Your task to perform on an android device: toggle data saver in the chrome app Image 0: 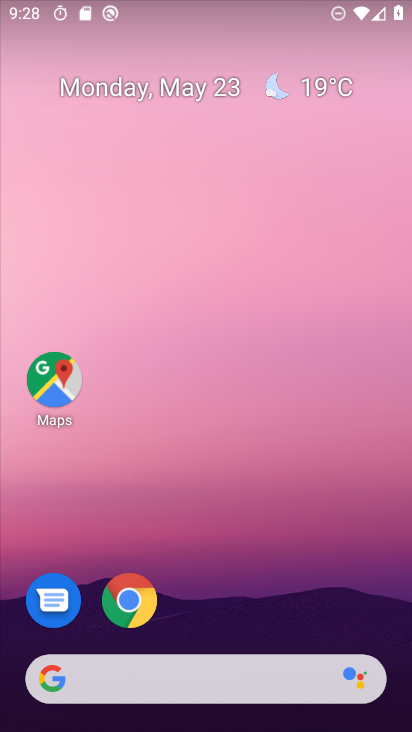
Step 0: press home button
Your task to perform on an android device: toggle data saver in the chrome app Image 1: 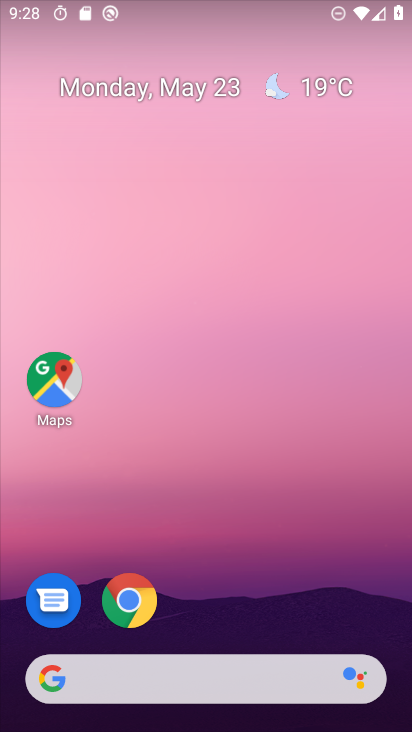
Step 1: click (127, 597)
Your task to perform on an android device: toggle data saver in the chrome app Image 2: 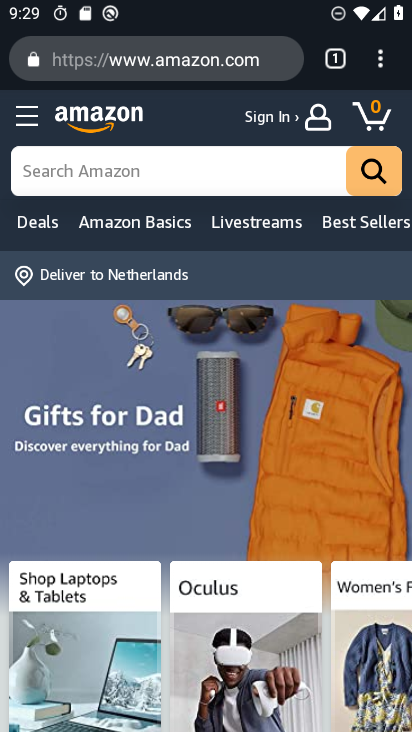
Step 2: click (379, 67)
Your task to perform on an android device: toggle data saver in the chrome app Image 3: 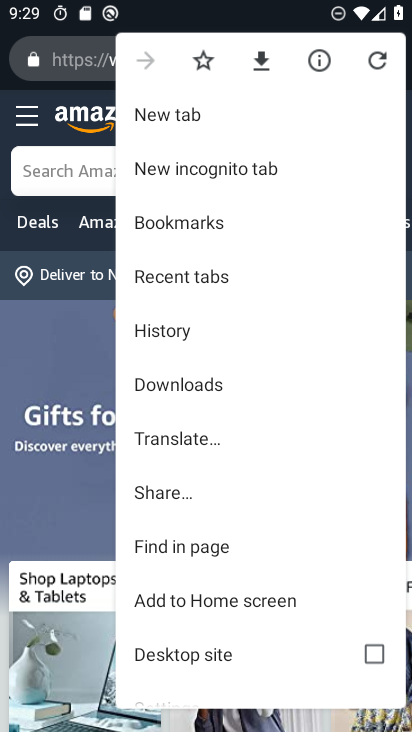
Step 3: drag from (164, 682) to (304, 135)
Your task to perform on an android device: toggle data saver in the chrome app Image 4: 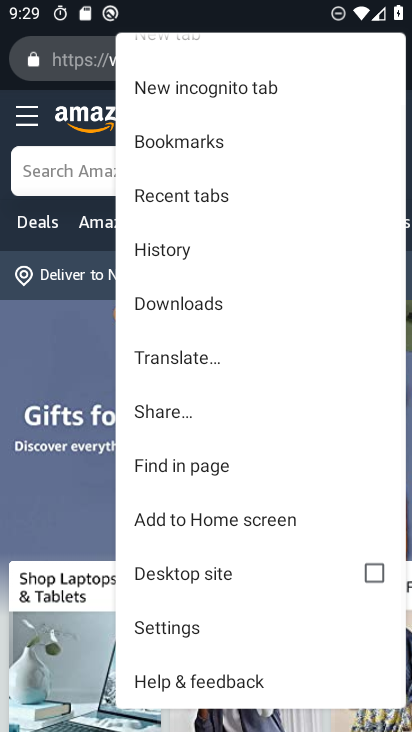
Step 4: click (180, 625)
Your task to perform on an android device: toggle data saver in the chrome app Image 5: 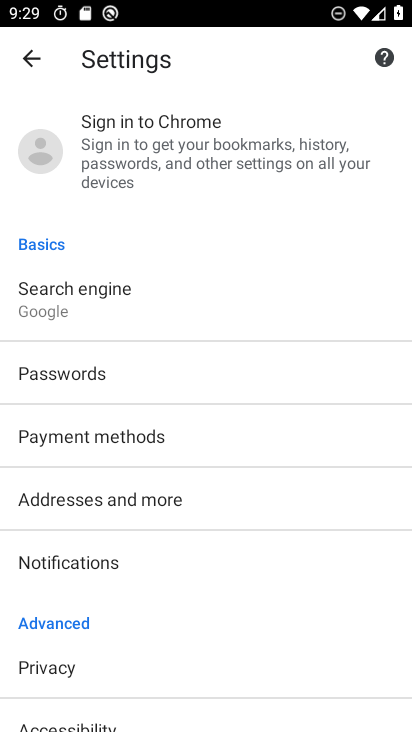
Step 5: drag from (56, 671) to (255, 138)
Your task to perform on an android device: toggle data saver in the chrome app Image 6: 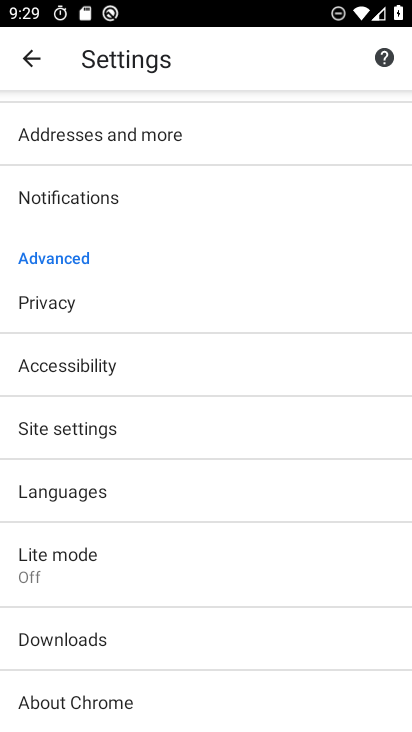
Step 6: click (97, 560)
Your task to perform on an android device: toggle data saver in the chrome app Image 7: 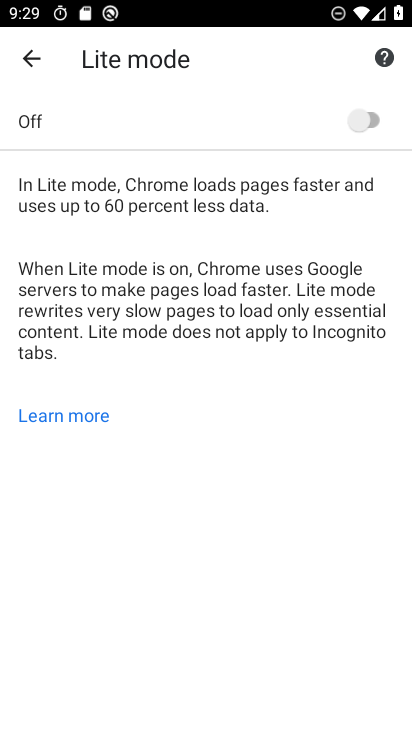
Step 7: click (363, 129)
Your task to perform on an android device: toggle data saver in the chrome app Image 8: 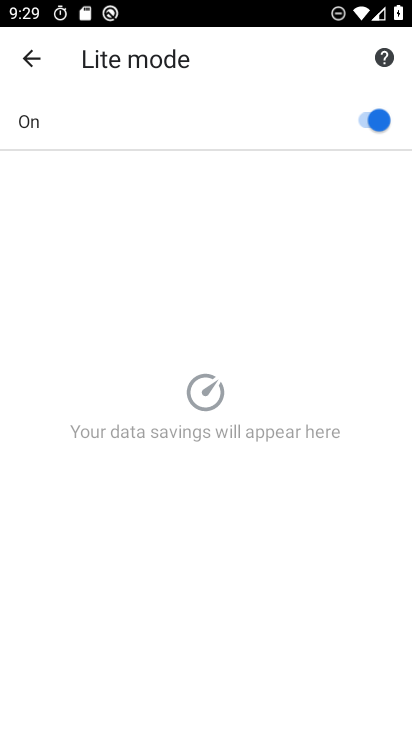
Step 8: task complete